Your task to perform on an android device: Play the last video I watched on Youtube Image 0: 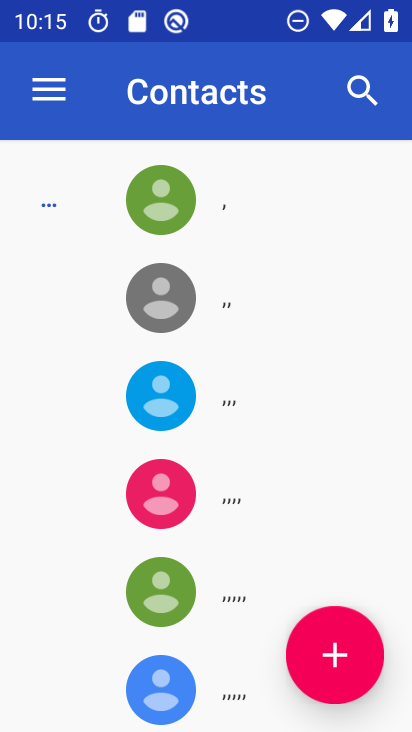
Step 0: press home button
Your task to perform on an android device: Play the last video I watched on Youtube Image 1: 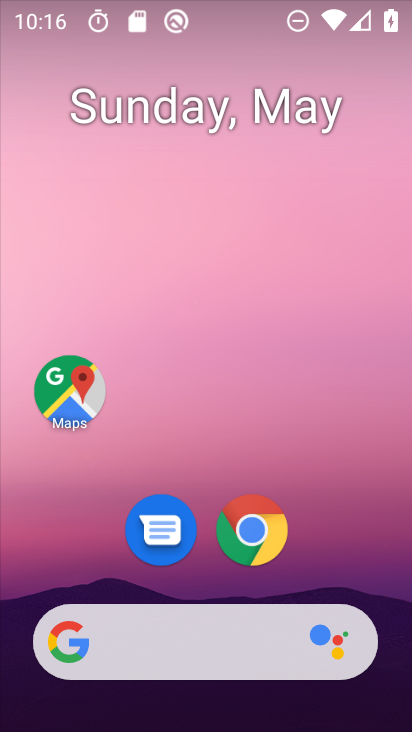
Step 1: drag from (270, 531) to (238, 39)
Your task to perform on an android device: Play the last video I watched on Youtube Image 2: 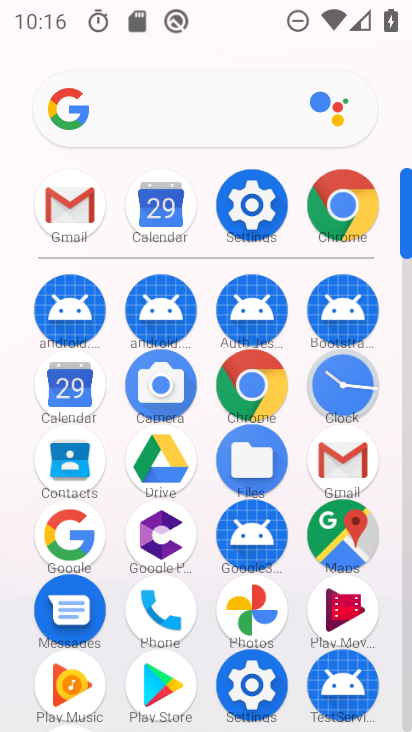
Step 2: drag from (205, 642) to (234, 299)
Your task to perform on an android device: Play the last video I watched on Youtube Image 3: 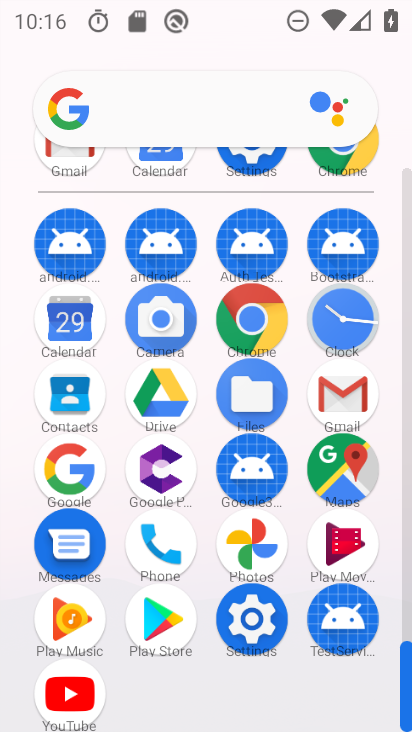
Step 3: click (69, 675)
Your task to perform on an android device: Play the last video I watched on Youtube Image 4: 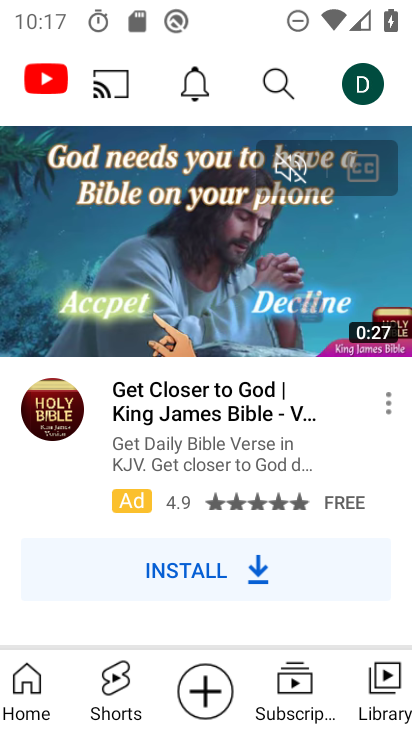
Step 4: drag from (110, 705) to (233, 402)
Your task to perform on an android device: Play the last video I watched on Youtube Image 5: 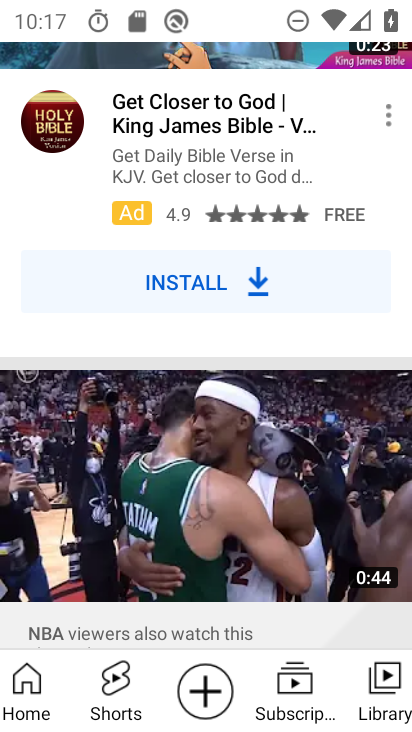
Step 5: click (376, 688)
Your task to perform on an android device: Play the last video I watched on Youtube Image 6: 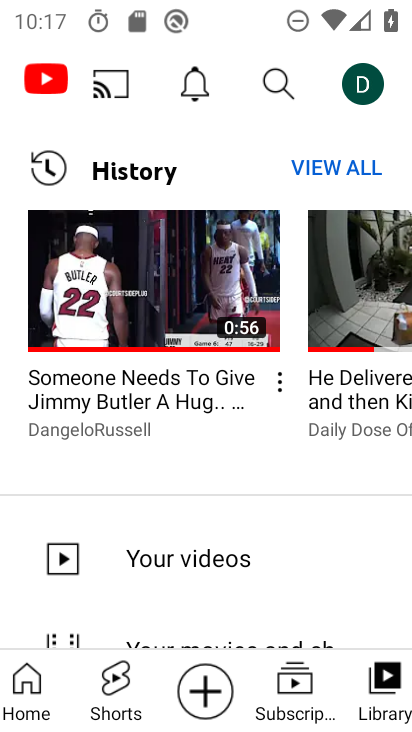
Step 6: click (83, 298)
Your task to perform on an android device: Play the last video I watched on Youtube Image 7: 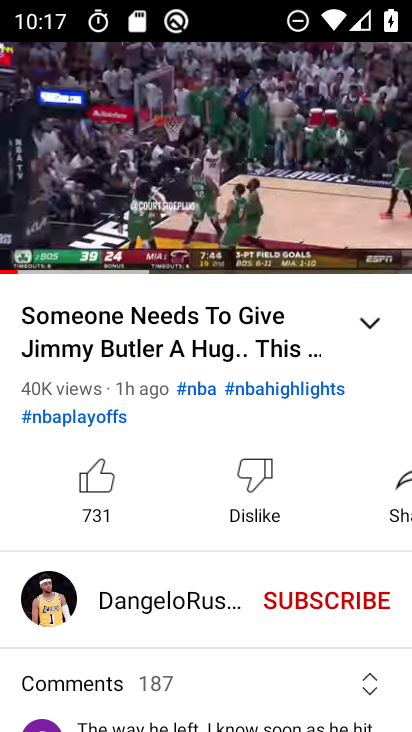
Step 7: task complete